Your task to perform on an android device: refresh tabs in the chrome app Image 0: 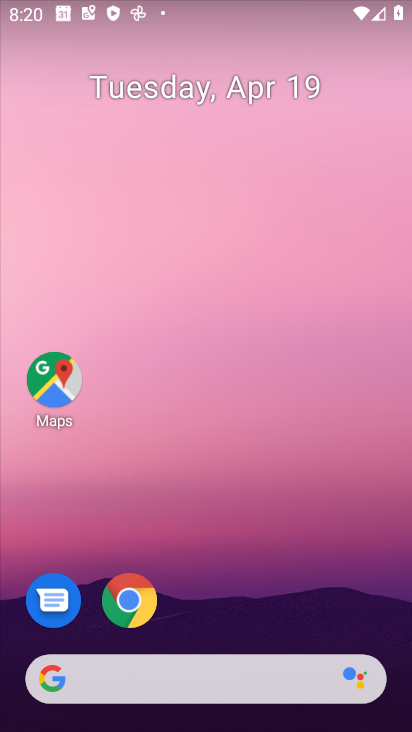
Step 0: drag from (309, 618) to (252, 75)
Your task to perform on an android device: refresh tabs in the chrome app Image 1: 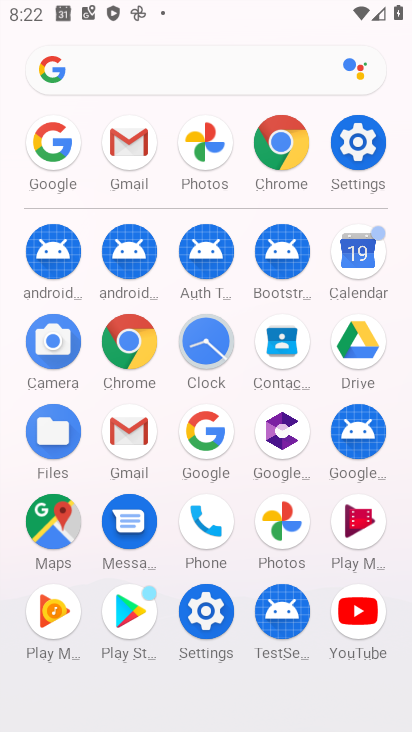
Step 1: click (285, 148)
Your task to perform on an android device: refresh tabs in the chrome app Image 2: 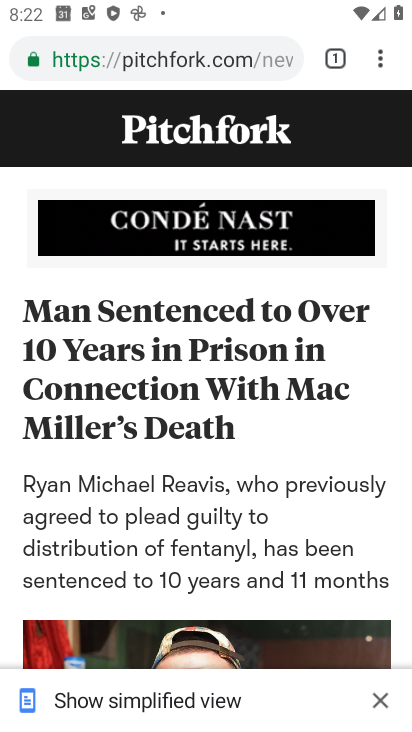
Step 2: click (382, 55)
Your task to perform on an android device: refresh tabs in the chrome app Image 3: 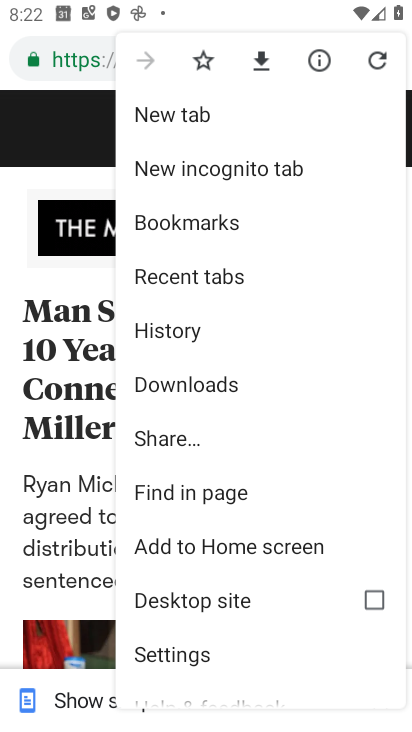
Step 3: click (380, 63)
Your task to perform on an android device: refresh tabs in the chrome app Image 4: 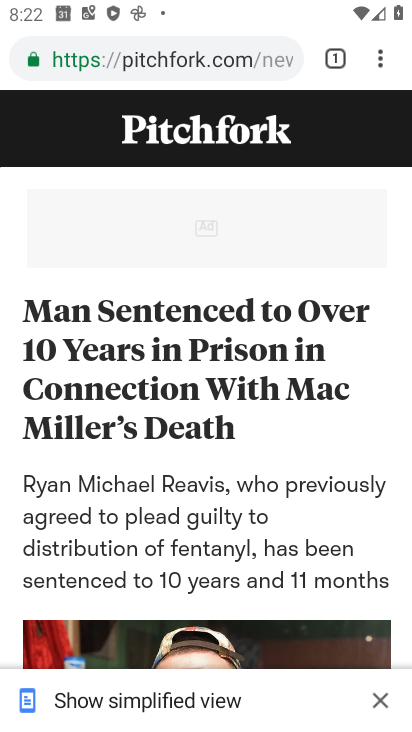
Step 4: task complete